Your task to perform on an android device: turn on priority inbox in the gmail app Image 0: 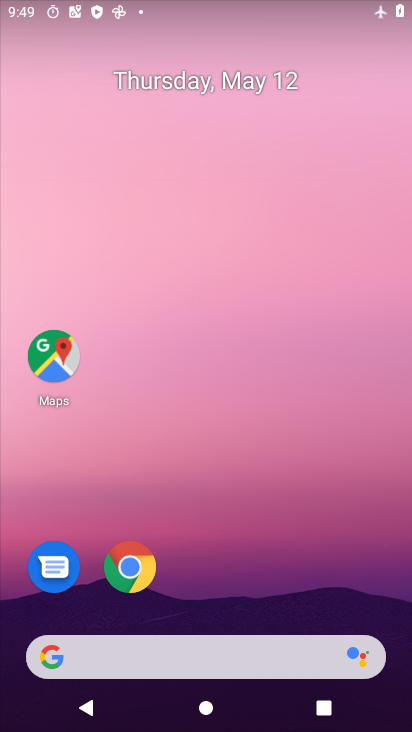
Step 0: drag from (227, 646) to (322, 190)
Your task to perform on an android device: turn on priority inbox in the gmail app Image 1: 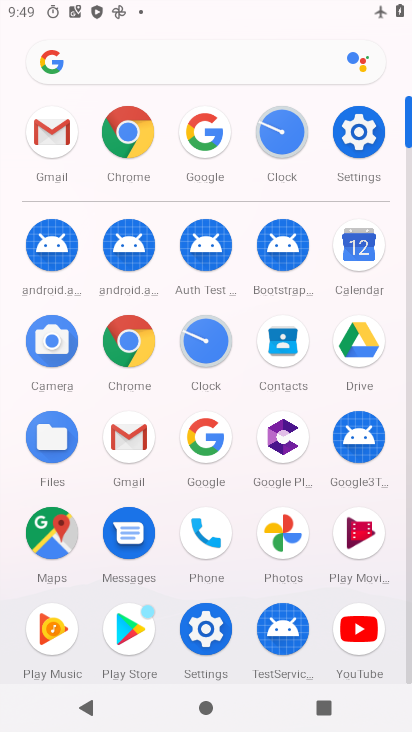
Step 1: click (133, 439)
Your task to perform on an android device: turn on priority inbox in the gmail app Image 2: 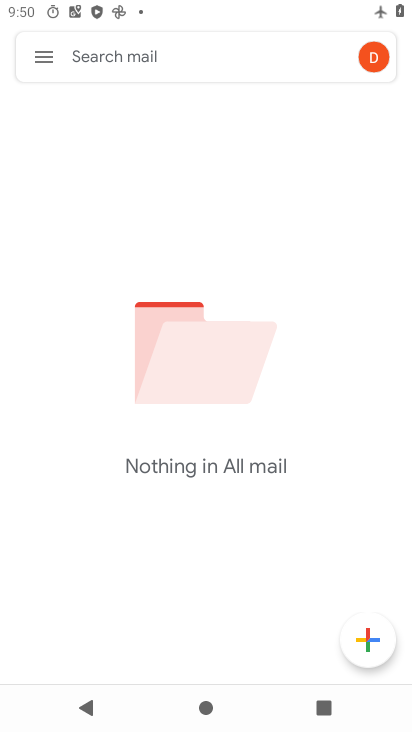
Step 2: click (47, 62)
Your task to perform on an android device: turn on priority inbox in the gmail app Image 3: 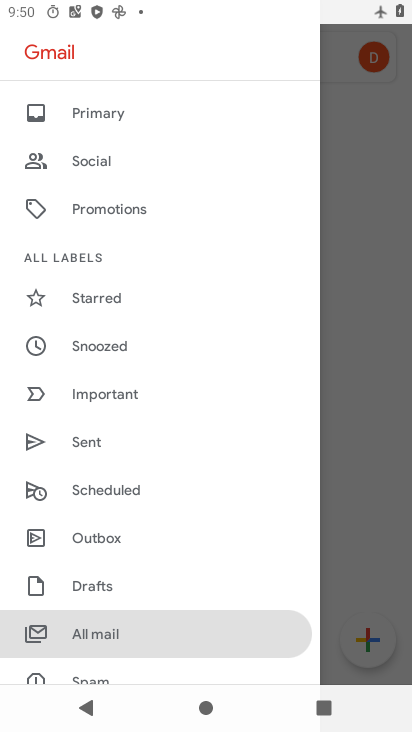
Step 3: drag from (140, 531) to (167, 367)
Your task to perform on an android device: turn on priority inbox in the gmail app Image 4: 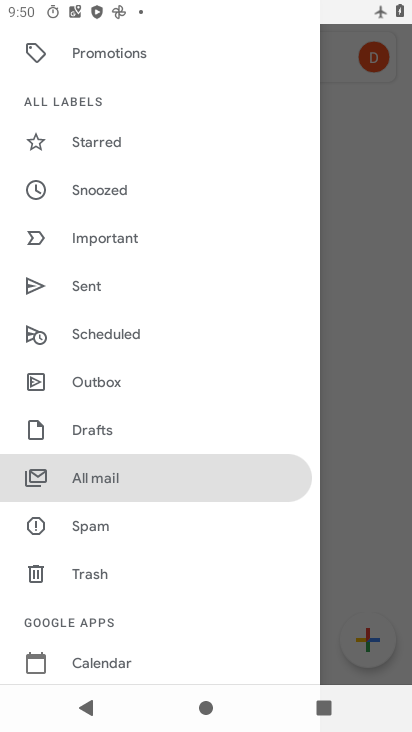
Step 4: drag from (127, 558) to (141, 251)
Your task to perform on an android device: turn on priority inbox in the gmail app Image 5: 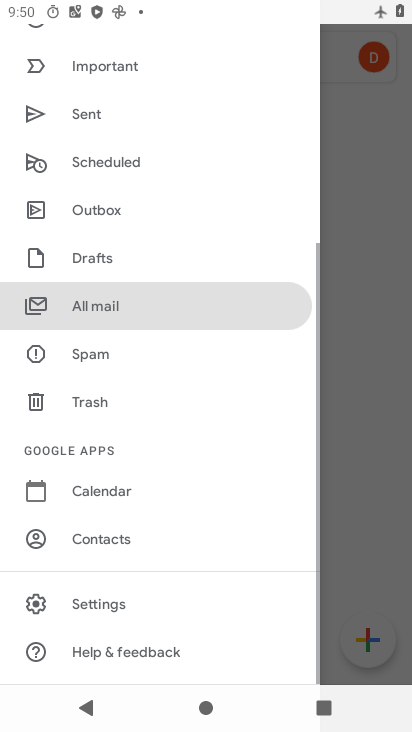
Step 5: click (147, 598)
Your task to perform on an android device: turn on priority inbox in the gmail app Image 6: 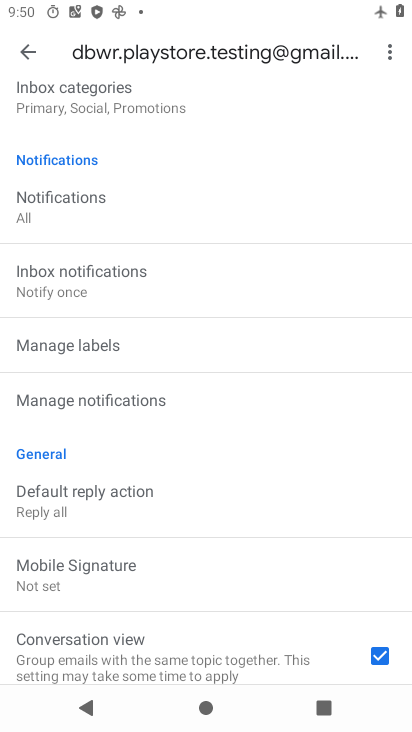
Step 6: drag from (203, 570) to (209, 287)
Your task to perform on an android device: turn on priority inbox in the gmail app Image 7: 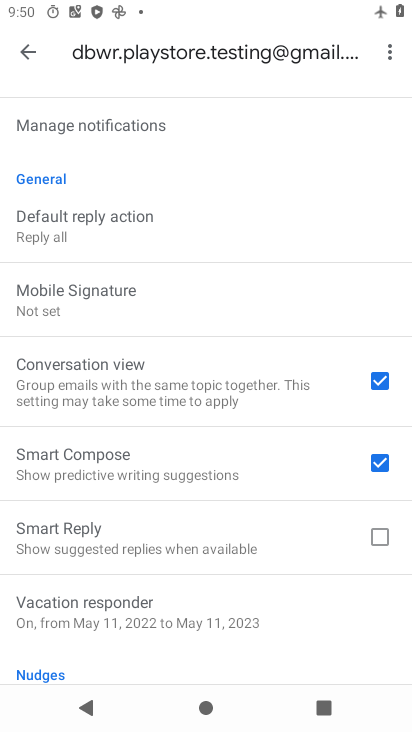
Step 7: drag from (157, 317) to (103, 721)
Your task to perform on an android device: turn on priority inbox in the gmail app Image 8: 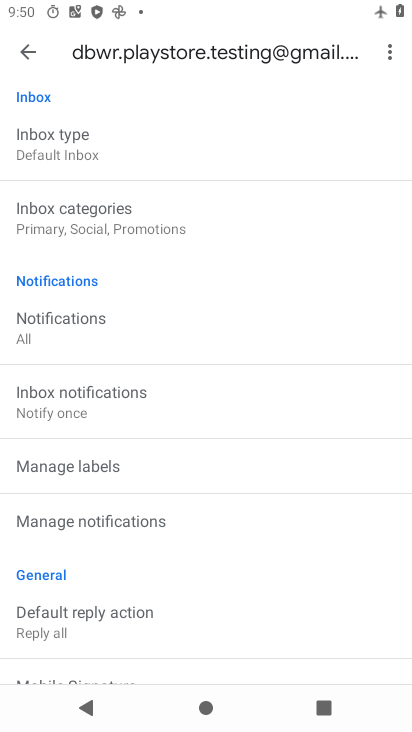
Step 8: click (151, 228)
Your task to perform on an android device: turn on priority inbox in the gmail app Image 9: 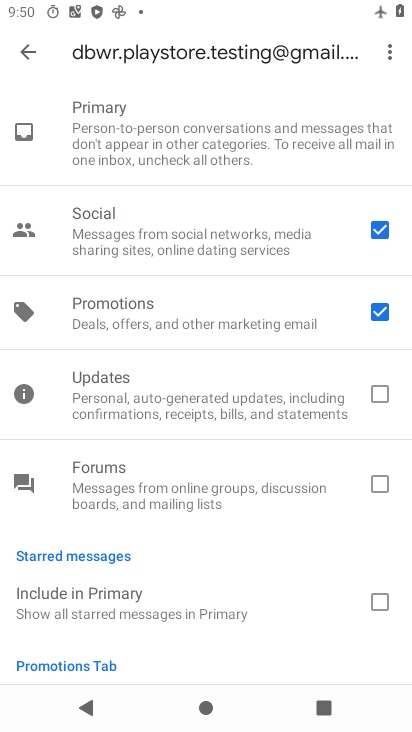
Step 9: drag from (152, 285) to (122, 499)
Your task to perform on an android device: turn on priority inbox in the gmail app Image 10: 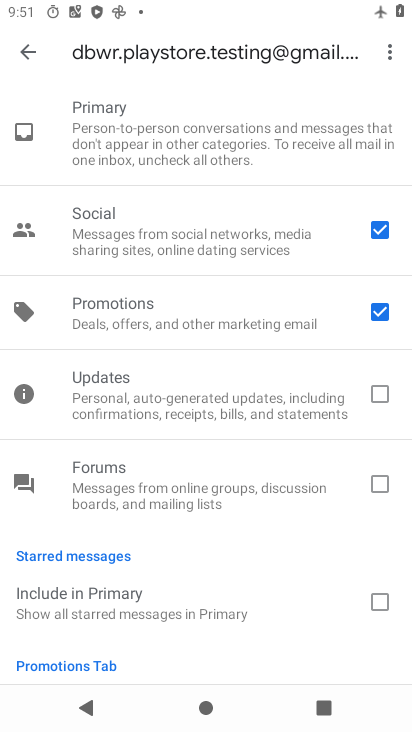
Step 10: click (38, 59)
Your task to perform on an android device: turn on priority inbox in the gmail app Image 11: 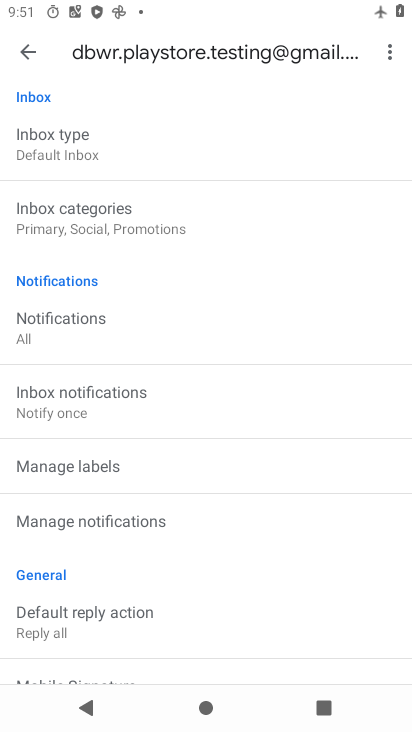
Step 11: click (109, 153)
Your task to perform on an android device: turn on priority inbox in the gmail app Image 12: 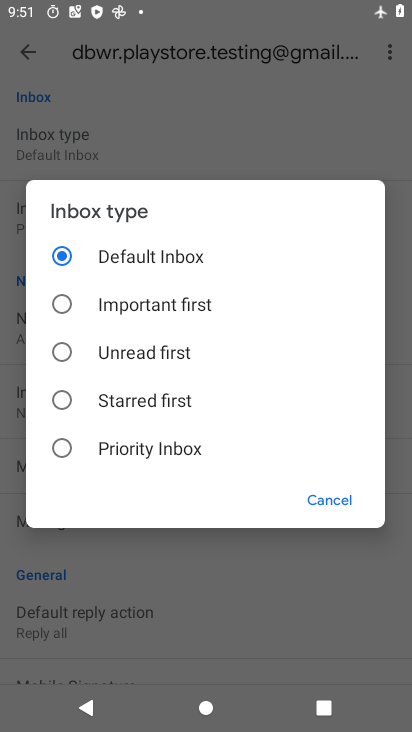
Step 12: click (170, 458)
Your task to perform on an android device: turn on priority inbox in the gmail app Image 13: 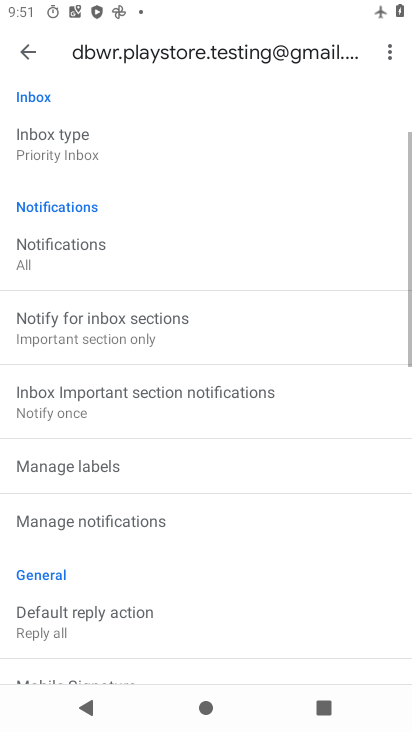
Step 13: task complete